Your task to perform on an android device: Search for seafood restaurants on Google Maps Image 0: 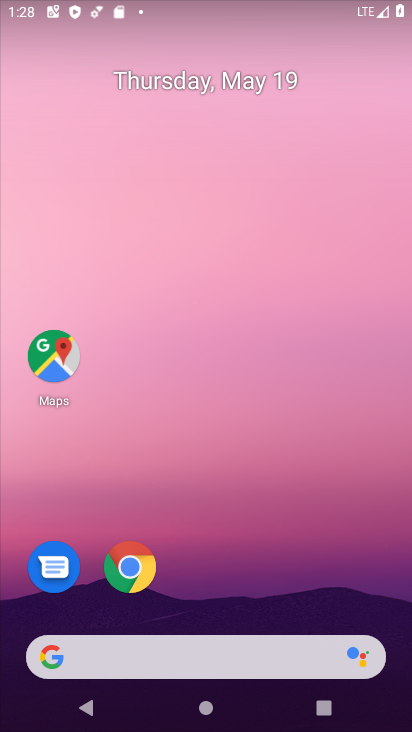
Step 0: click (46, 363)
Your task to perform on an android device: Search for seafood restaurants on Google Maps Image 1: 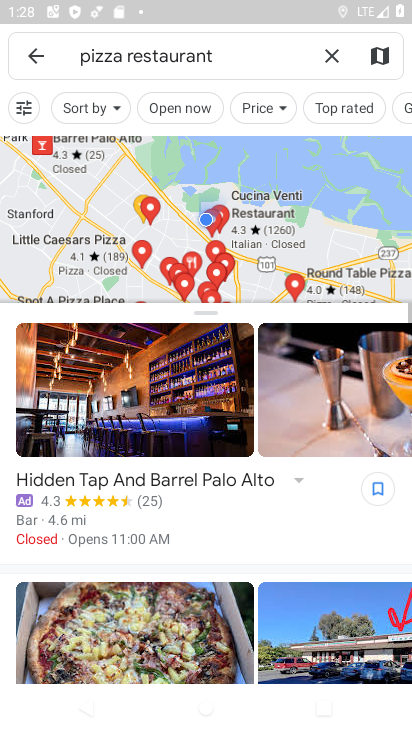
Step 1: click (339, 52)
Your task to perform on an android device: Search for seafood restaurants on Google Maps Image 2: 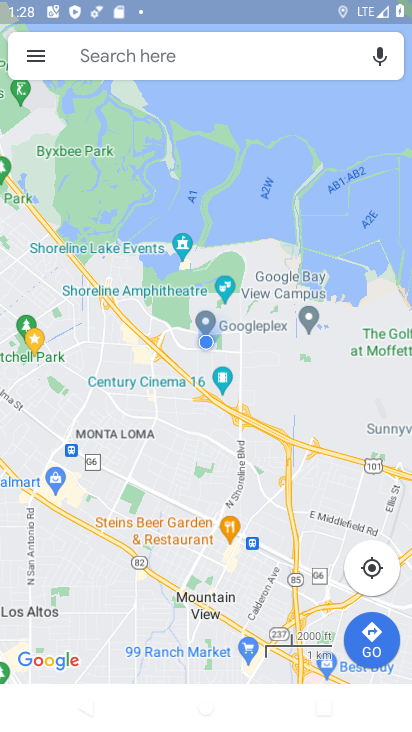
Step 2: click (222, 53)
Your task to perform on an android device: Search for seafood restaurants on Google Maps Image 3: 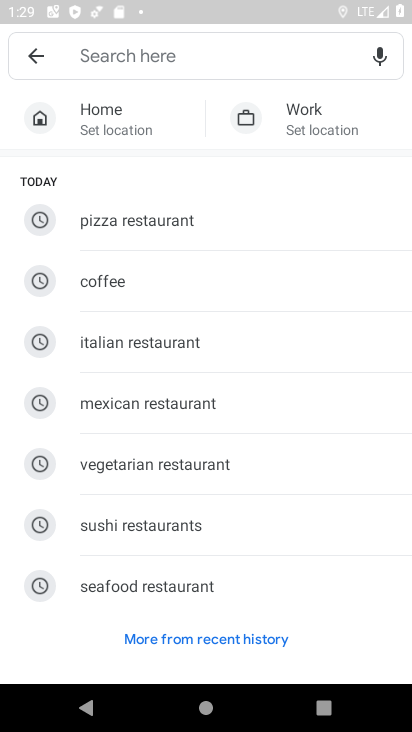
Step 3: click (112, 586)
Your task to perform on an android device: Search for seafood restaurants on Google Maps Image 4: 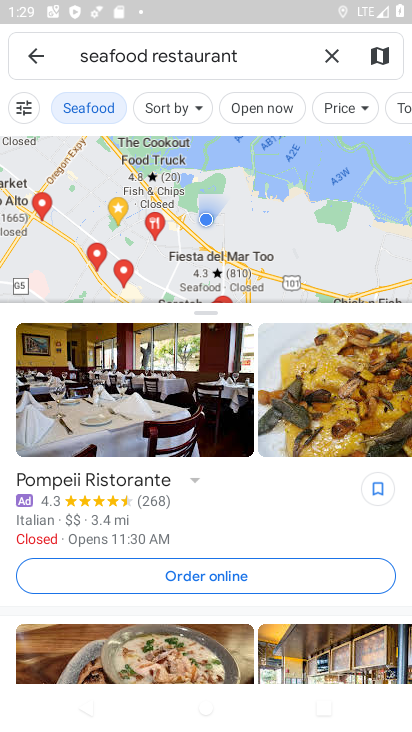
Step 4: task complete